Your task to perform on an android device: Open Amazon Image 0: 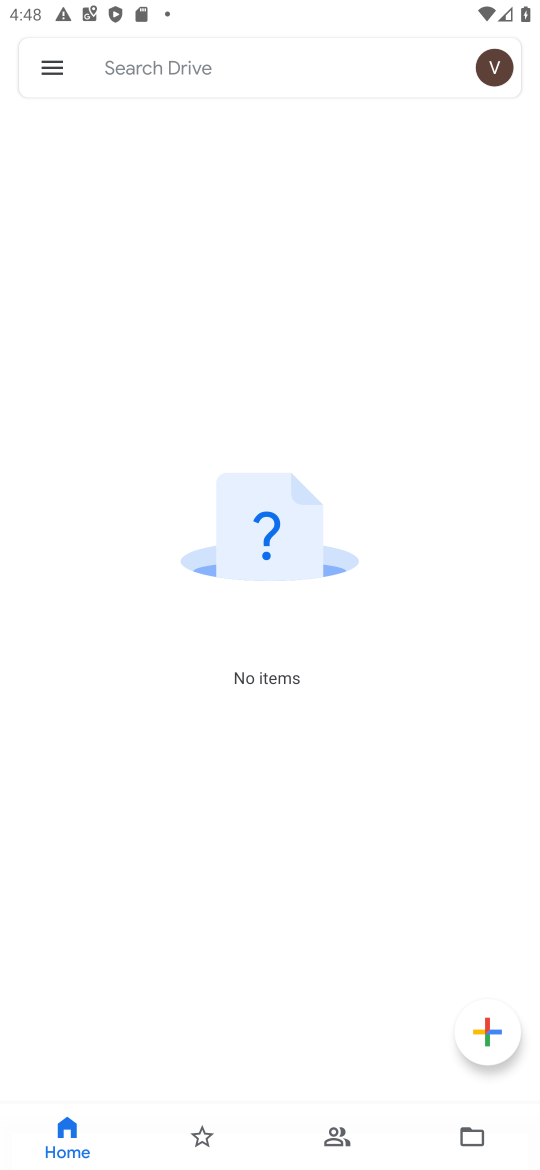
Step 0: press home button
Your task to perform on an android device: Open Amazon Image 1: 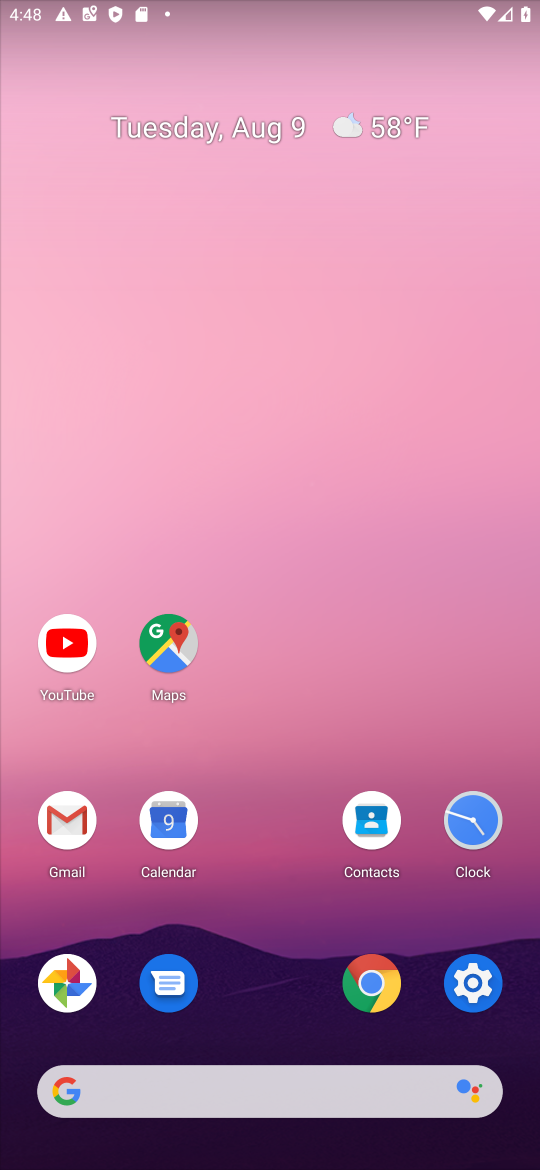
Step 1: click (379, 993)
Your task to perform on an android device: Open Amazon Image 2: 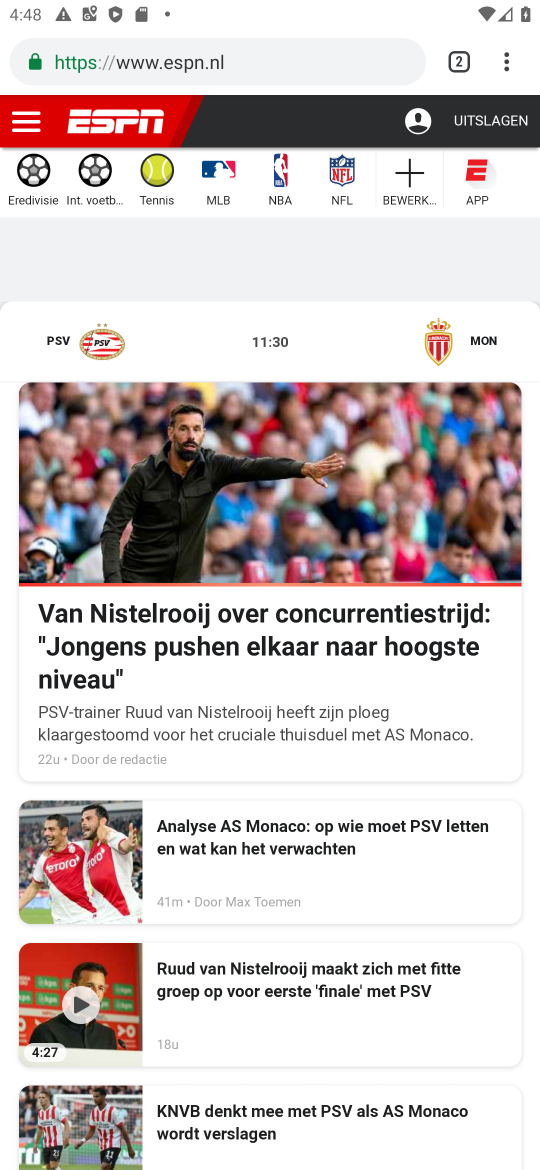
Step 2: click (488, 57)
Your task to perform on an android device: Open Amazon Image 3: 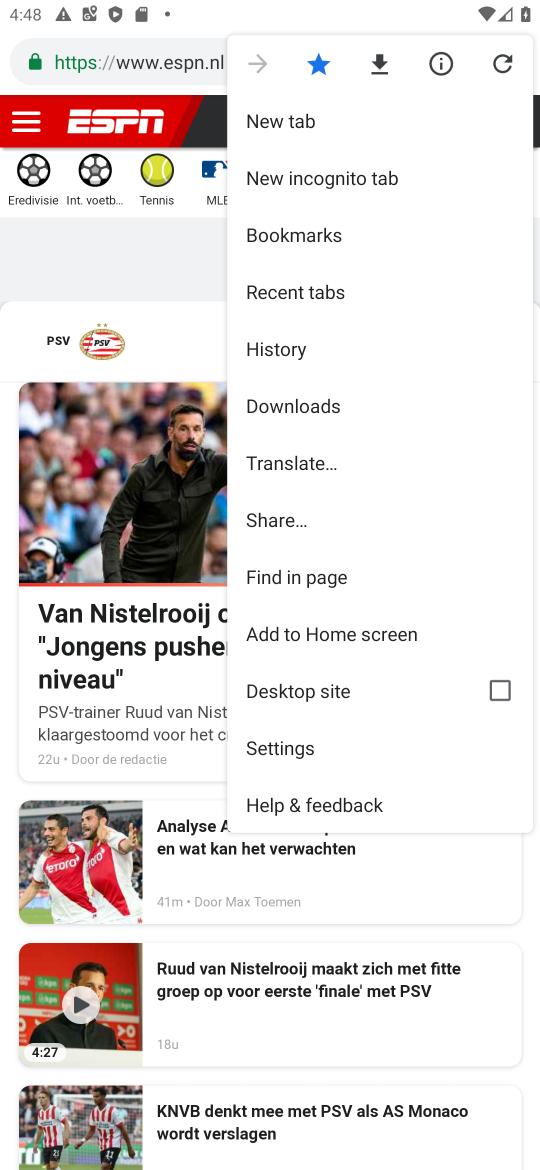
Step 3: click (293, 126)
Your task to perform on an android device: Open Amazon Image 4: 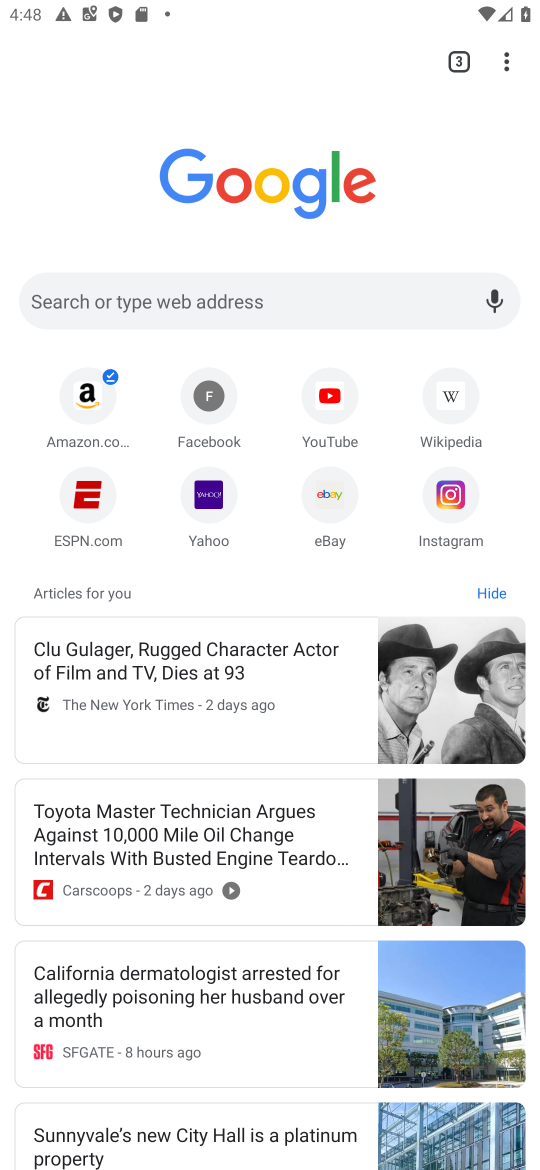
Step 4: click (81, 385)
Your task to perform on an android device: Open Amazon Image 5: 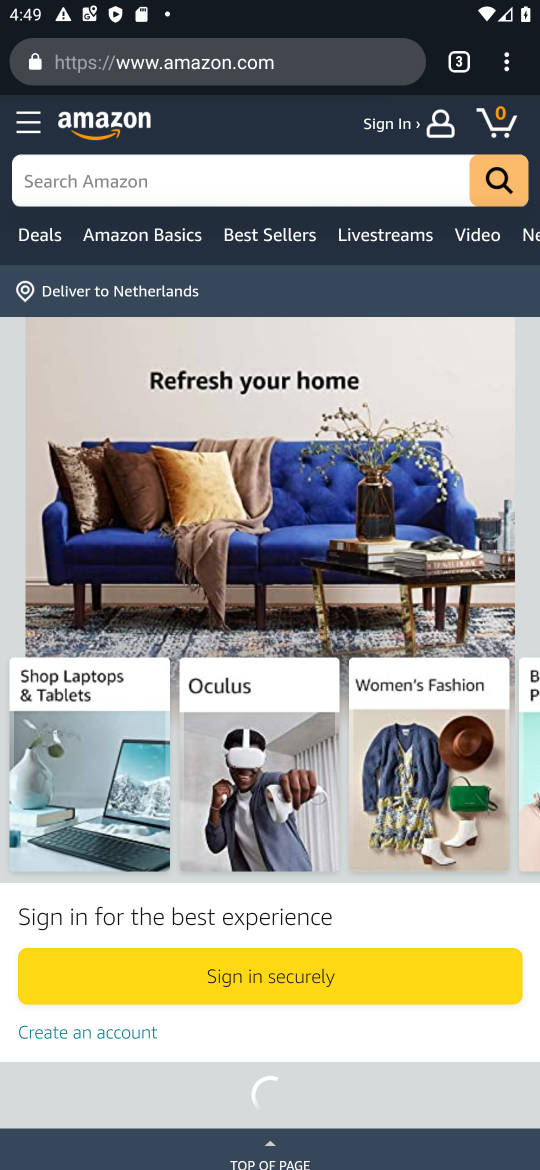
Step 5: task complete